Your task to perform on an android device: check battery use Image 0: 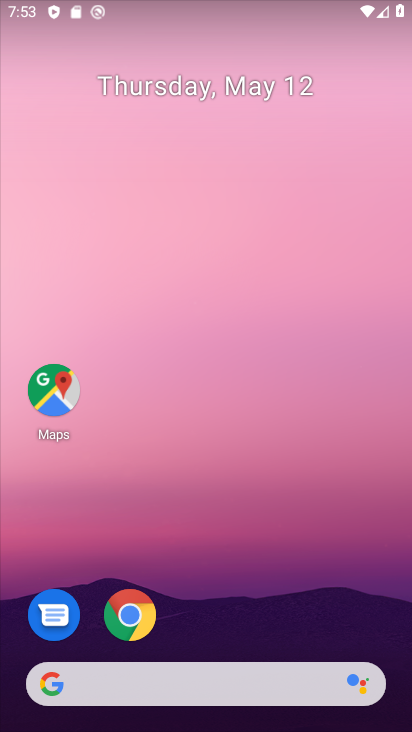
Step 0: drag from (252, 558) to (177, 54)
Your task to perform on an android device: check battery use Image 1: 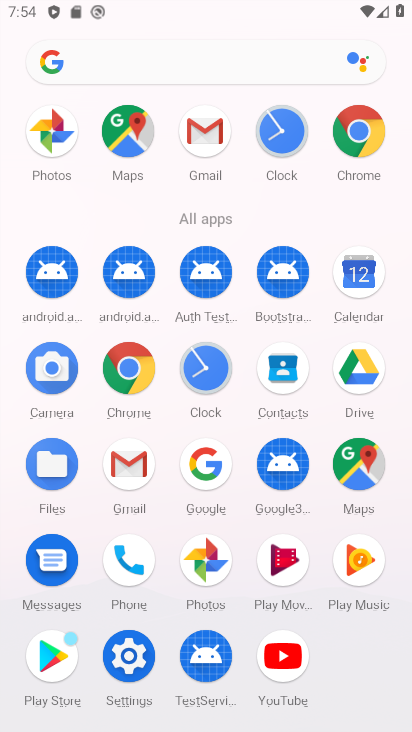
Step 1: drag from (0, 495) to (12, 233)
Your task to perform on an android device: check battery use Image 2: 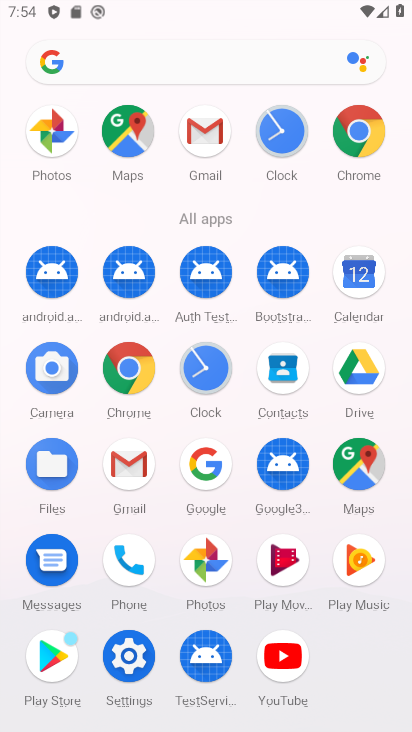
Step 2: click (127, 659)
Your task to perform on an android device: check battery use Image 3: 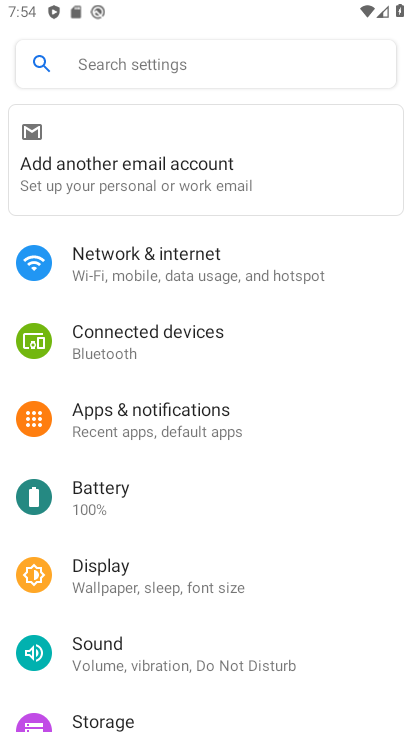
Step 3: click (131, 488)
Your task to perform on an android device: check battery use Image 4: 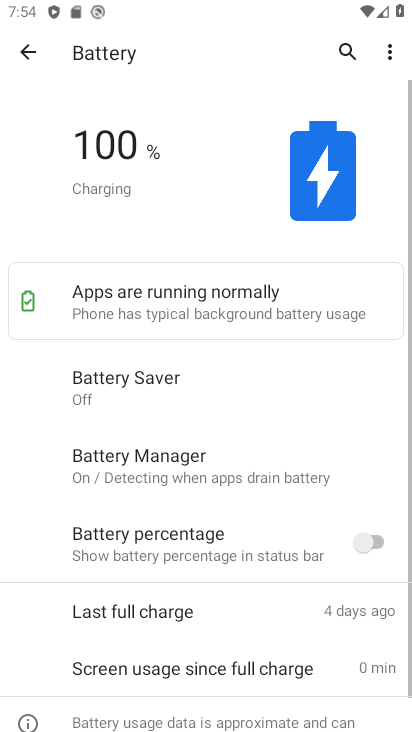
Step 4: task complete